Your task to perform on an android device: Open Youtube and go to the subscriptions tab Image 0: 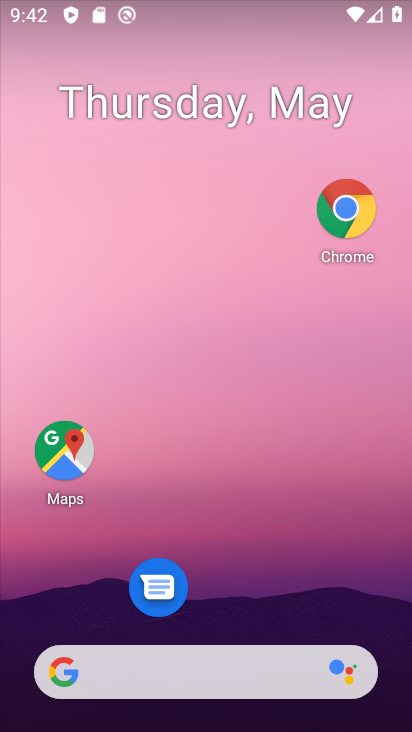
Step 0: drag from (216, 616) to (223, 75)
Your task to perform on an android device: Open Youtube and go to the subscriptions tab Image 1: 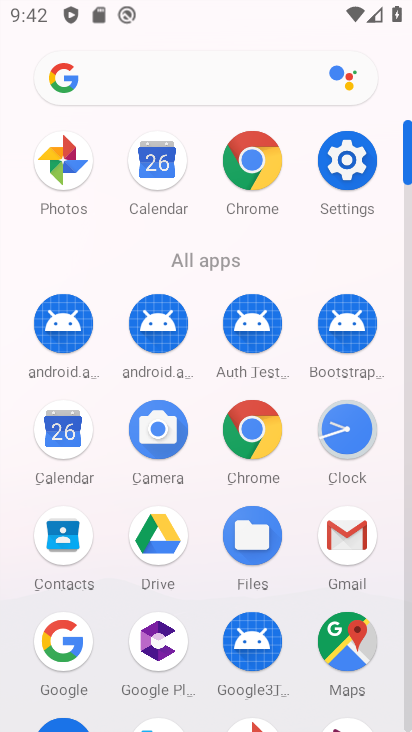
Step 1: drag from (250, 614) to (282, 277)
Your task to perform on an android device: Open Youtube and go to the subscriptions tab Image 2: 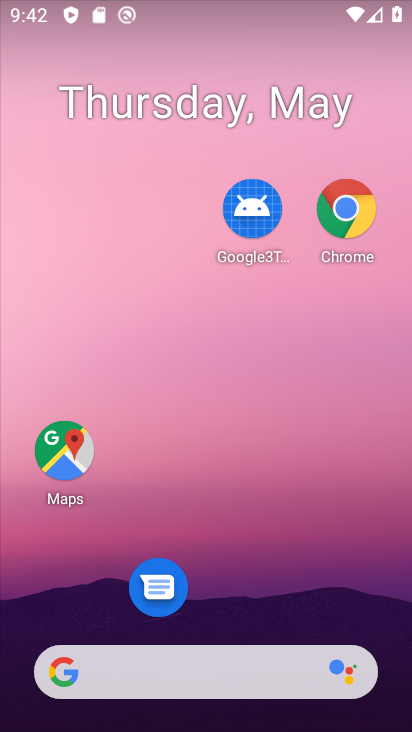
Step 2: drag from (231, 217) to (218, 30)
Your task to perform on an android device: Open Youtube and go to the subscriptions tab Image 3: 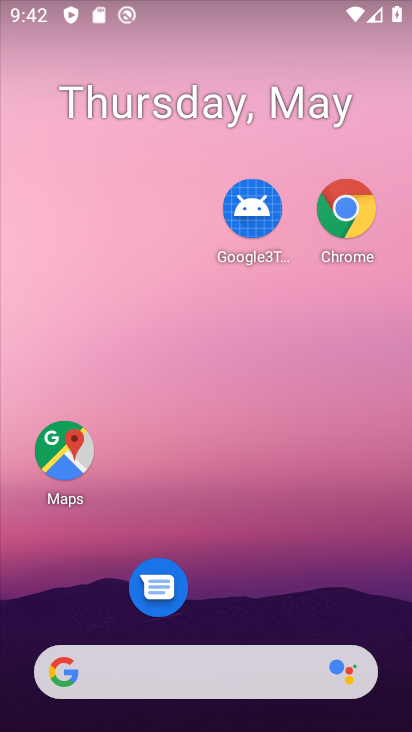
Step 3: drag from (244, 226) to (189, 39)
Your task to perform on an android device: Open Youtube and go to the subscriptions tab Image 4: 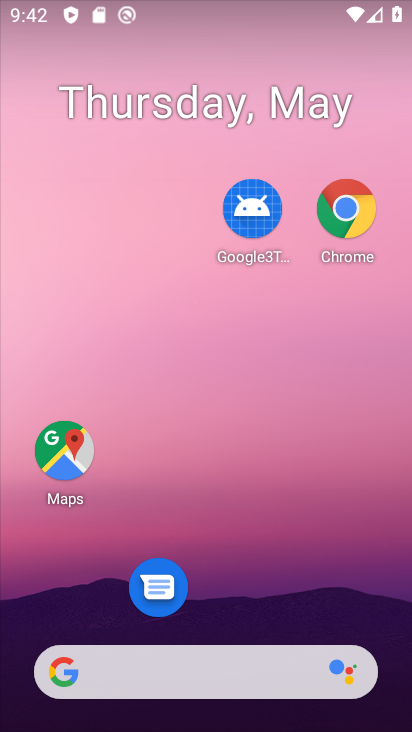
Step 4: drag from (208, 616) to (260, 14)
Your task to perform on an android device: Open Youtube and go to the subscriptions tab Image 5: 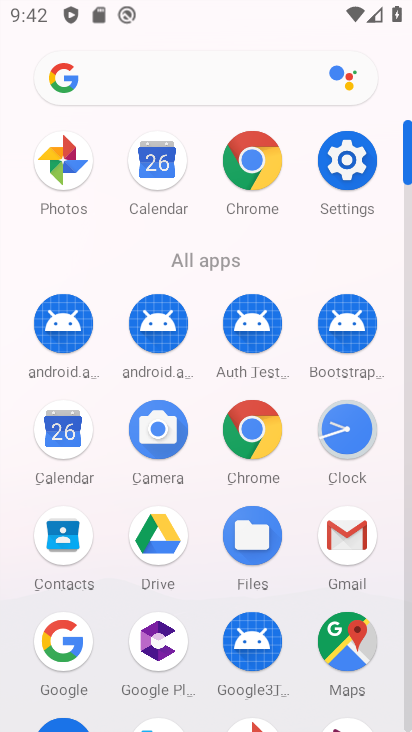
Step 5: drag from (296, 659) to (362, 240)
Your task to perform on an android device: Open Youtube and go to the subscriptions tab Image 6: 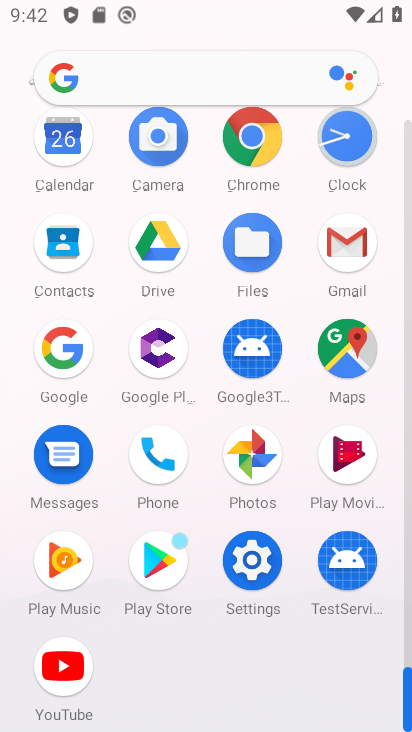
Step 6: drag from (294, 601) to (289, 76)
Your task to perform on an android device: Open Youtube and go to the subscriptions tab Image 7: 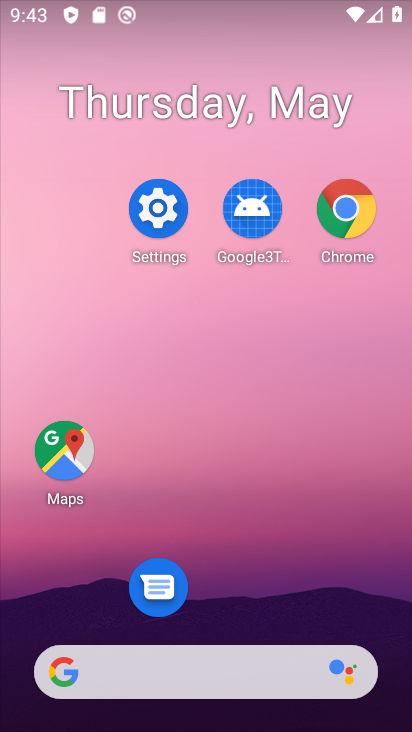
Step 7: click (71, 675)
Your task to perform on an android device: Open Youtube and go to the subscriptions tab Image 8: 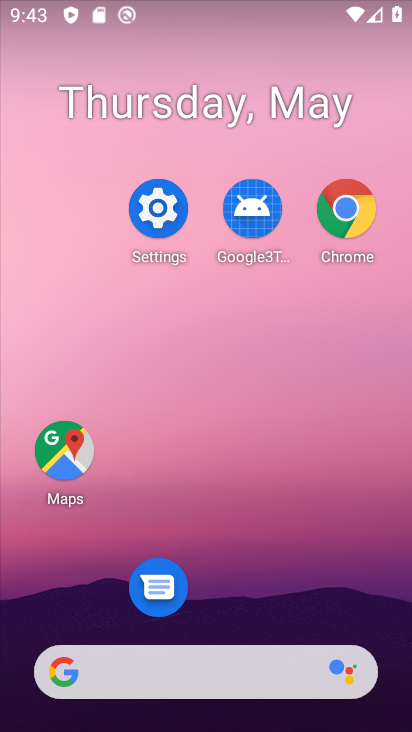
Step 8: drag from (215, 609) to (279, 208)
Your task to perform on an android device: Open Youtube and go to the subscriptions tab Image 9: 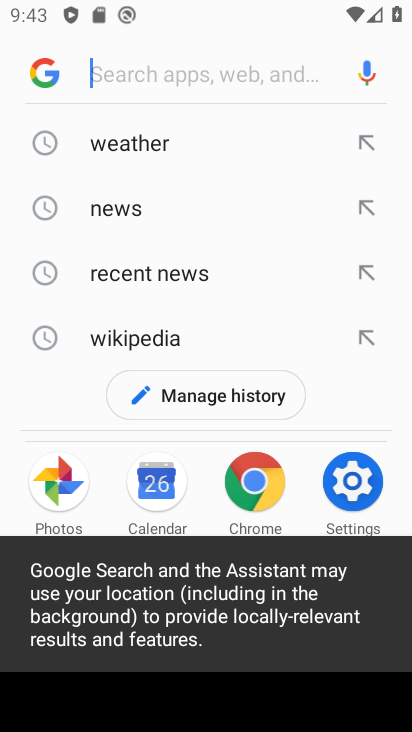
Step 9: press home button
Your task to perform on an android device: Open Youtube and go to the subscriptions tab Image 10: 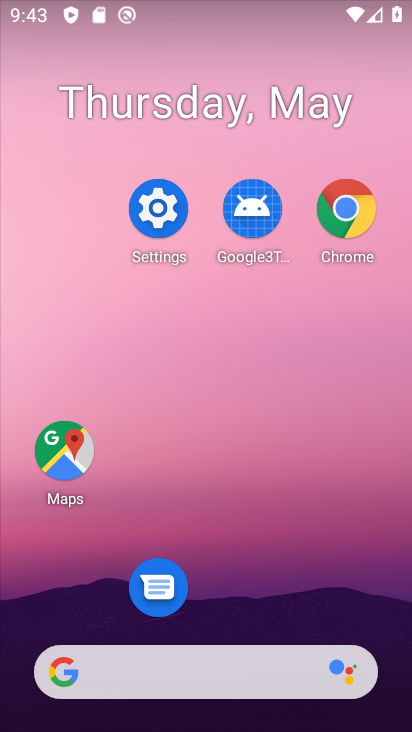
Step 10: drag from (257, 587) to (257, 4)
Your task to perform on an android device: Open Youtube and go to the subscriptions tab Image 11: 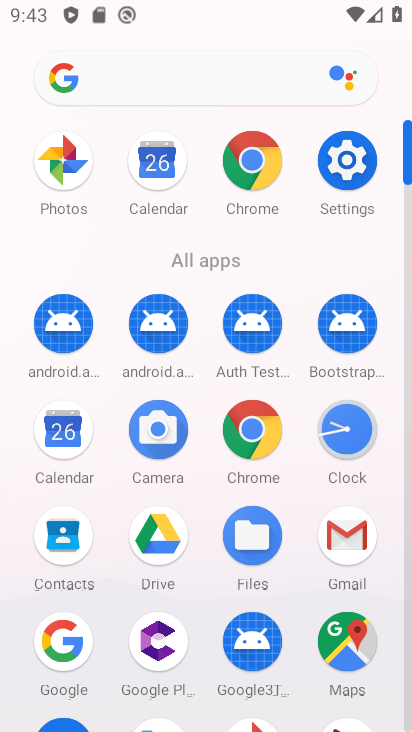
Step 11: drag from (272, 660) to (328, 254)
Your task to perform on an android device: Open Youtube and go to the subscriptions tab Image 12: 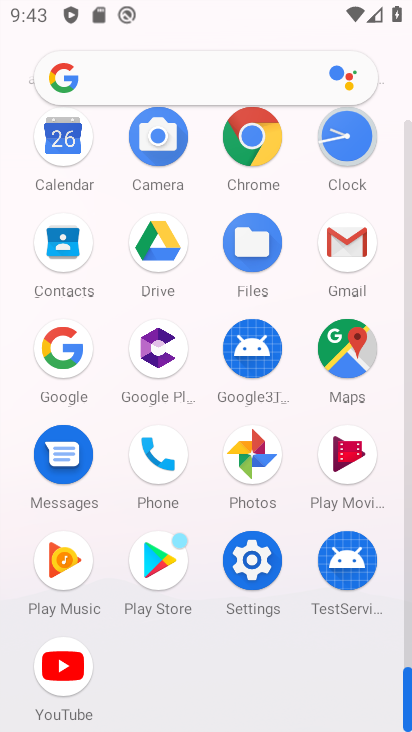
Step 12: click (61, 668)
Your task to perform on an android device: Open Youtube and go to the subscriptions tab Image 13: 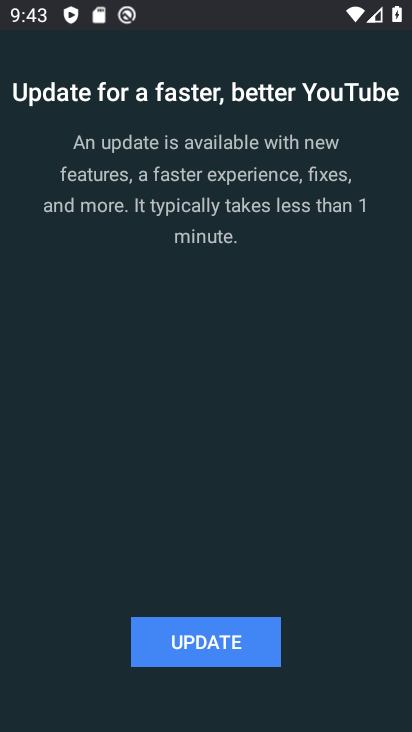
Step 13: click (192, 633)
Your task to perform on an android device: Open Youtube and go to the subscriptions tab Image 14: 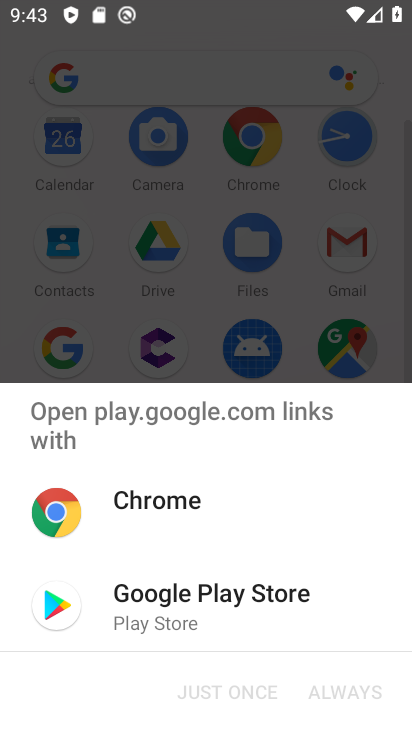
Step 14: click (210, 623)
Your task to perform on an android device: Open Youtube and go to the subscriptions tab Image 15: 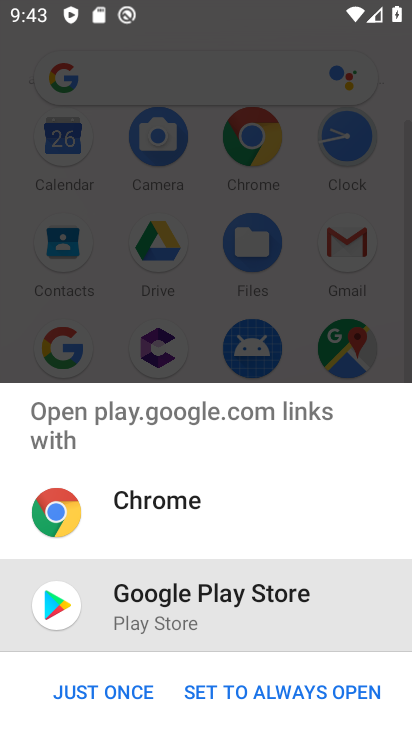
Step 15: click (316, 702)
Your task to perform on an android device: Open Youtube and go to the subscriptions tab Image 16: 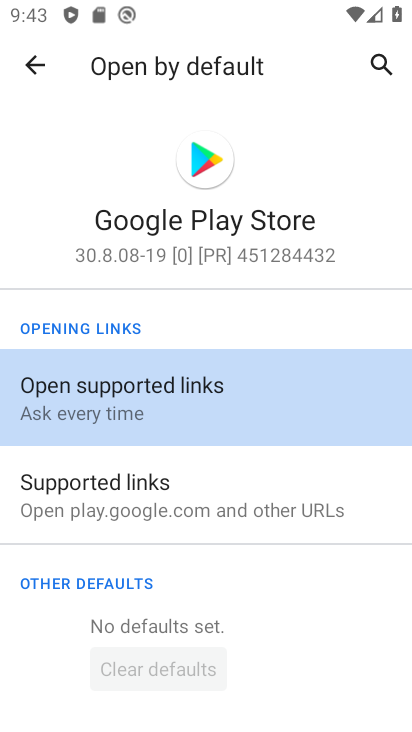
Step 16: click (144, 395)
Your task to perform on an android device: Open Youtube and go to the subscriptions tab Image 17: 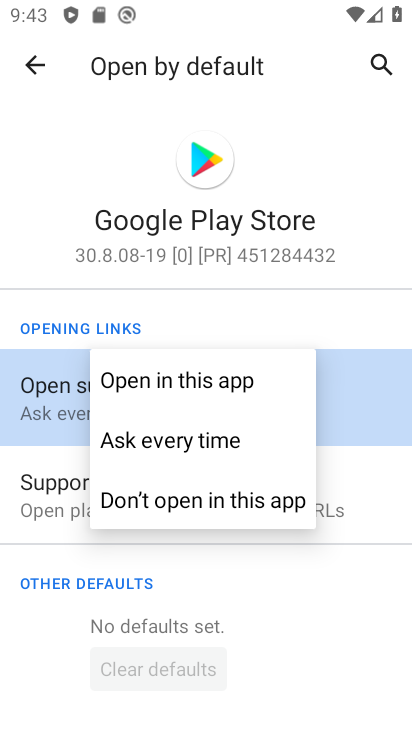
Step 17: click (130, 373)
Your task to perform on an android device: Open Youtube and go to the subscriptions tab Image 18: 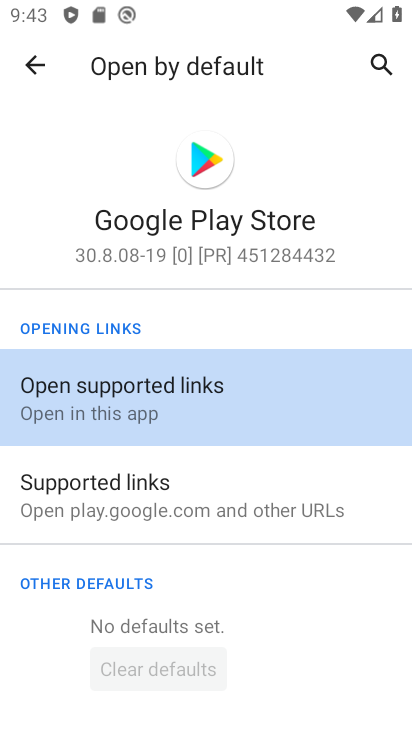
Step 18: click (32, 71)
Your task to perform on an android device: Open Youtube and go to the subscriptions tab Image 19: 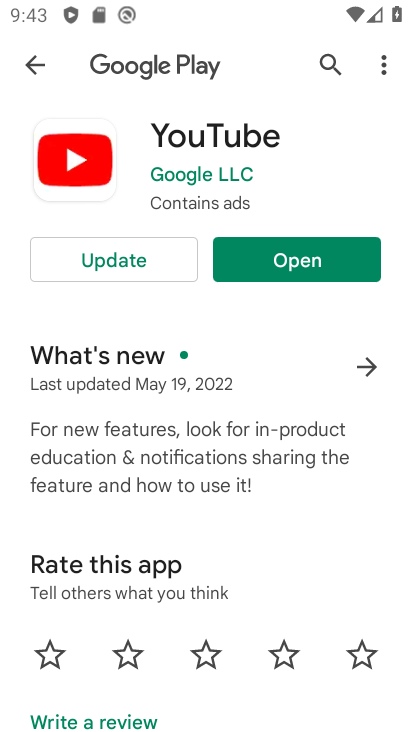
Step 19: click (289, 270)
Your task to perform on an android device: Open Youtube and go to the subscriptions tab Image 20: 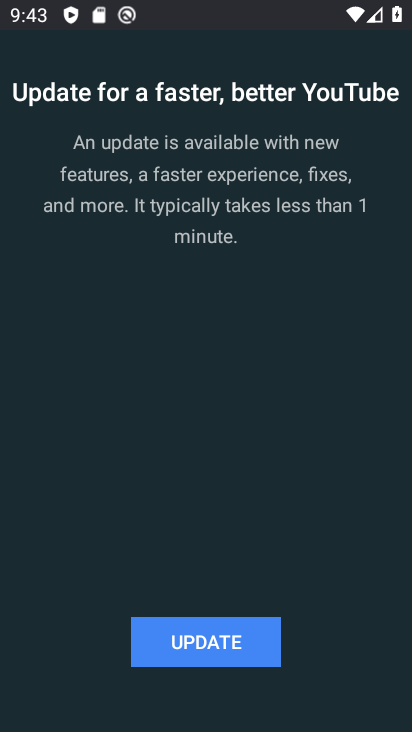
Step 20: press back button
Your task to perform on an android device: Open Youtube and go to the subscriptions tab Image 21: 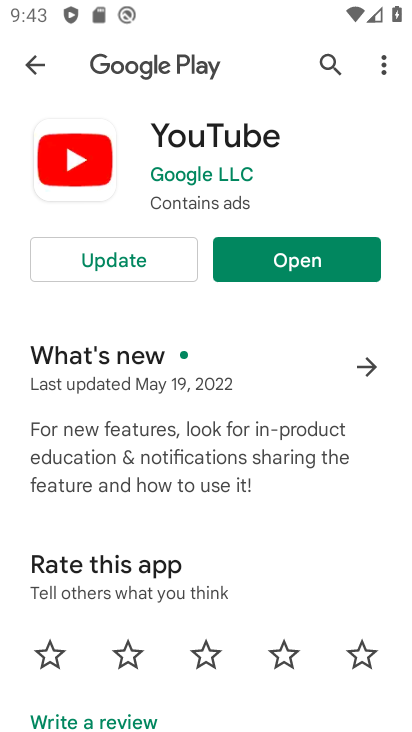
Step 21: click (91, 252)
Your task to perform on an android device: Open Youtube and go to the subscriptions tab Image 22: 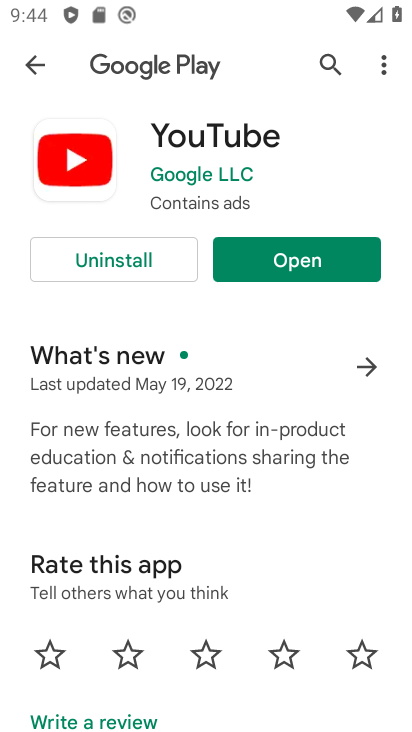
Step 22: click (325, 255)
Your task to perform on an android device: Open Youtube and go to the subscriptions tab Image 23: 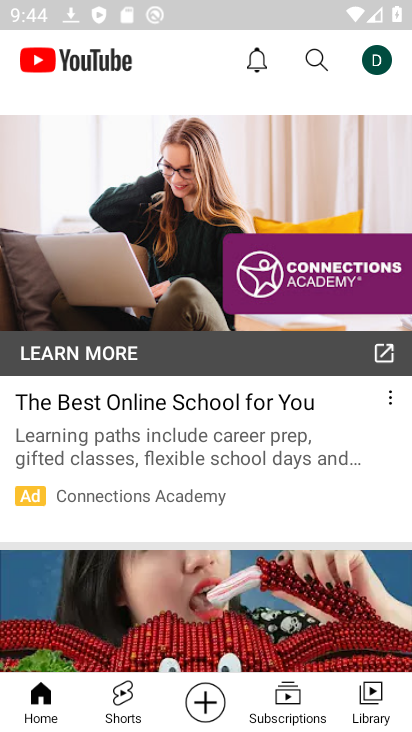
Step 23: click (286, 713)
Your task to perform on an android device: Open Youtube and go to the subscriptions tab Image 24: 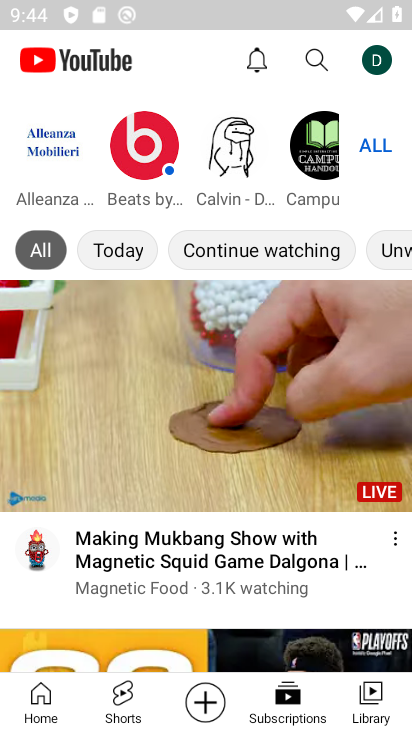
Step 24: task complete